Your task to perform on an android device: Do I have any events today? Image 0: 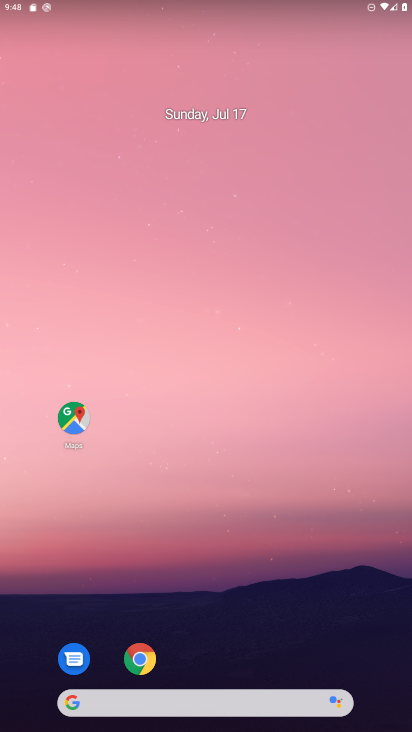
Step 0: drag from (248, 629) to (251, 176)
Your task to perform on an android device: Do I have any events today? Image 1: 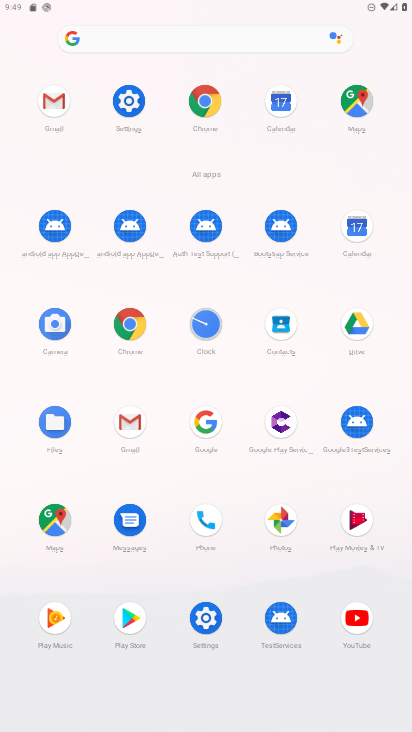
Step 1: click (351, 239)
Your task to perform on an android device: Do I have any events today? Image 2: 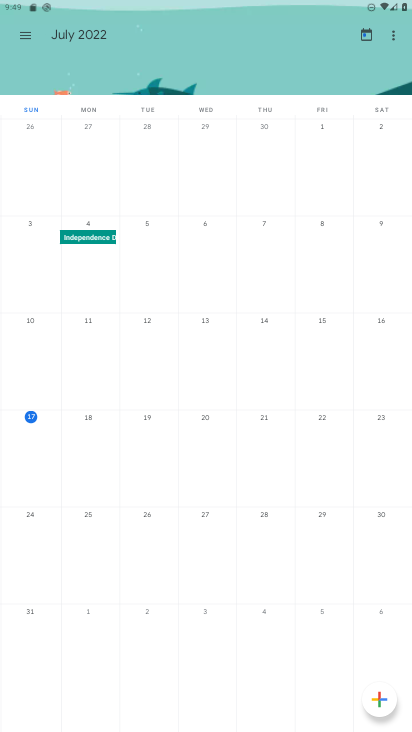
Step 2: click (29, 429)
Your task to perform on an android device: Do I have any events today? Image 3: 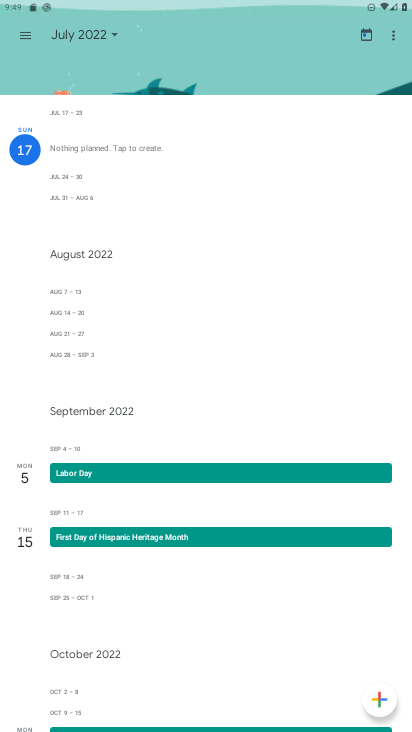
Step 3: task complete